Your task to perform on an android device: Open Google Maps and go to "Timeline" Image 0: 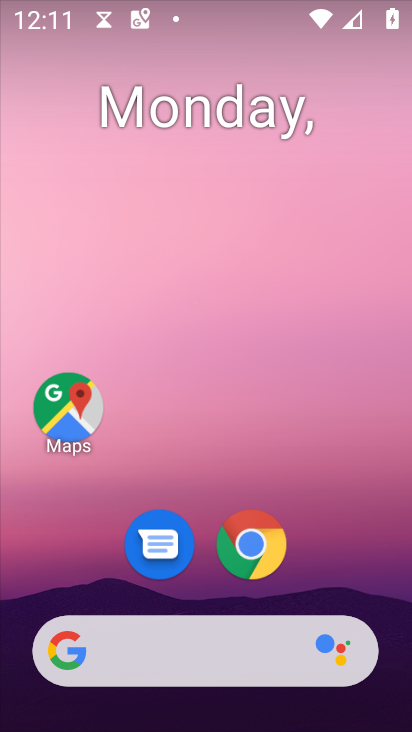
Step 0: drag from (305, 581) to (323, 327)
Your task to perform on an android device: Open Google Maps and go to "Timeline" Image 1: 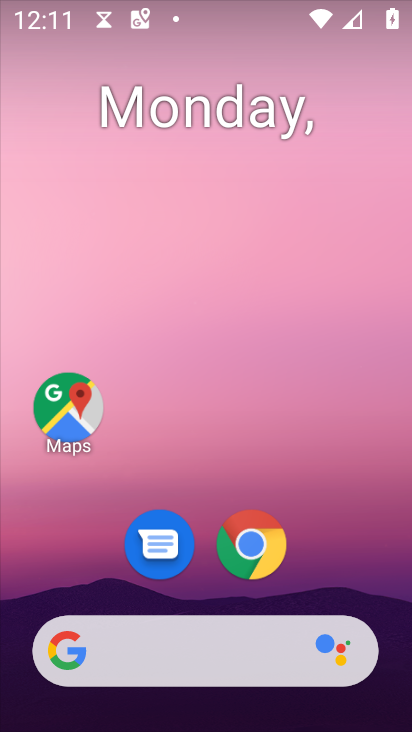
Step 1: click (47, 419)
Your task to perform on an android device: Open Google Maps and go to "Timeline" Image 2: 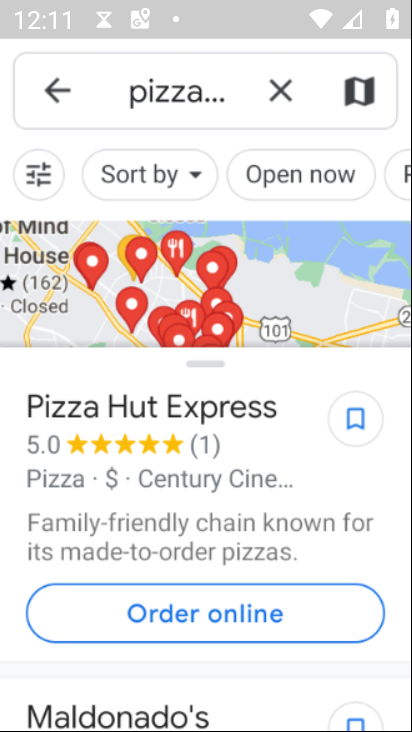
Step 2: click (296, 97)
Your task to perform on an android device: Open Google Maps and go to "Timeline" Image 3: 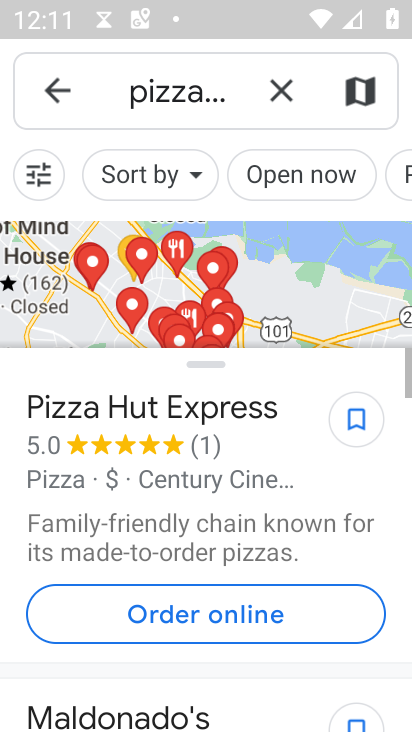
Step 3: click (278, 93)
Your task to perform on an android device: Open Google Maps and go to "Timeline" Image 4: 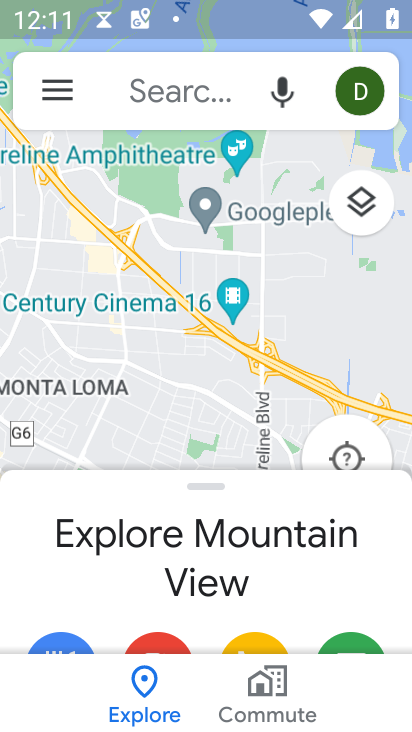
Step 4: click (48, 97)
Your task to perform on an android device: Open Google Maps and go to "Timeline" Image 5: 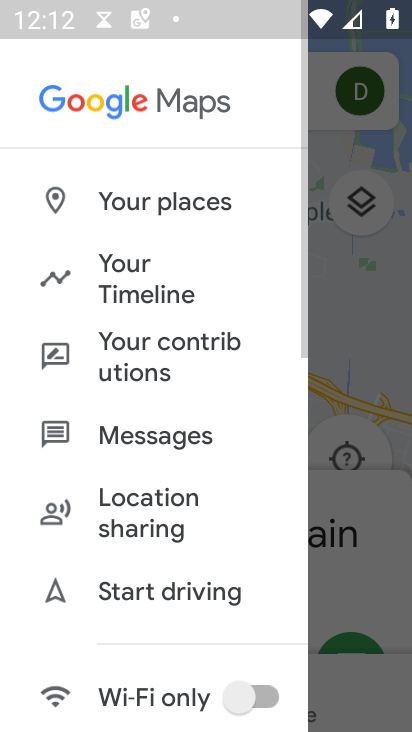
Step 5: click (135, 271)
Your task to perform on an android device: Open Google Maps and go to "Timeline" Image 6: 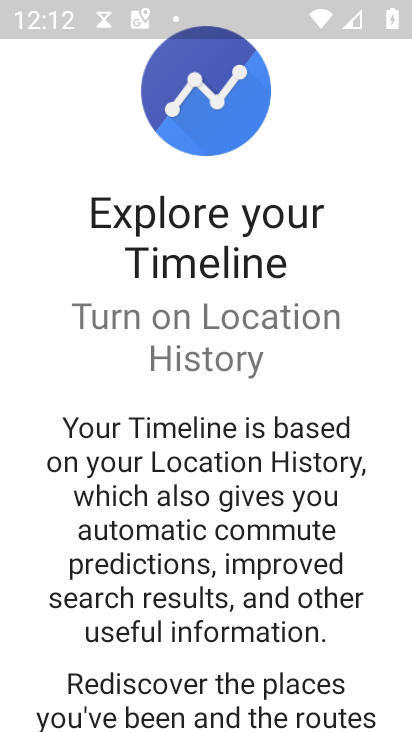
Step 6: drag from (251, 608) to (311, 171)
Your task to perform on an android device: Open Google Maps and go to "Timeline" Image 7: 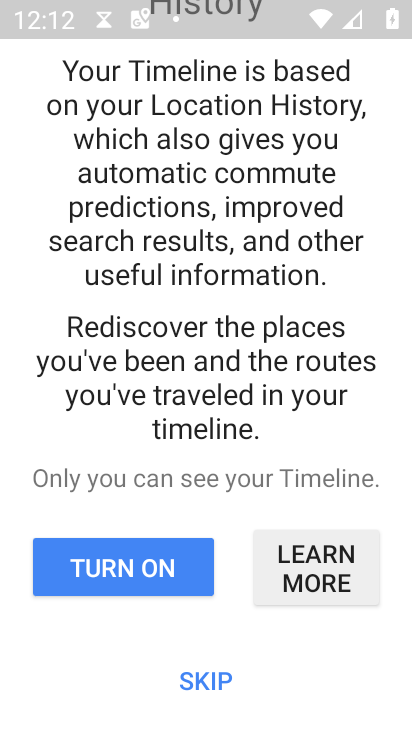
Step 7: click (183, 665)
Your task to perform on an android device: Open Google Maps and go to "Timeline" Image 8: 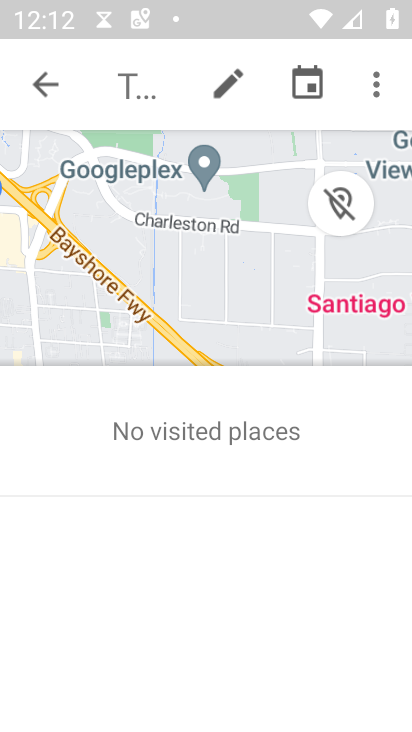
Step 8: task complete